Your task to perform on an android device: Go to Yahoo.com Image 0: 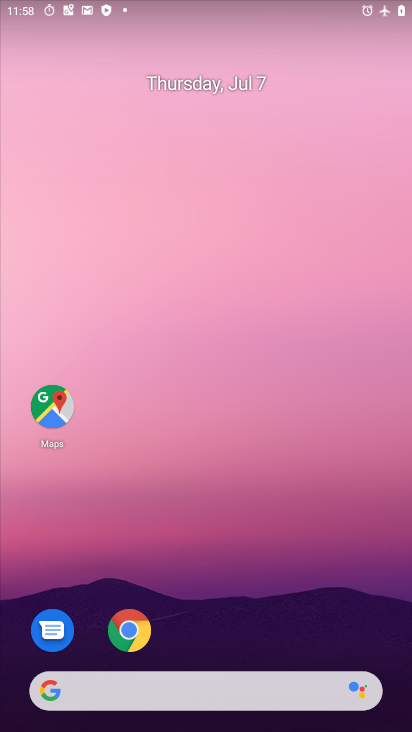
Step 0: click (127, 627)
Your task to perform on an android device: Go to Yahoo.com Image 1: 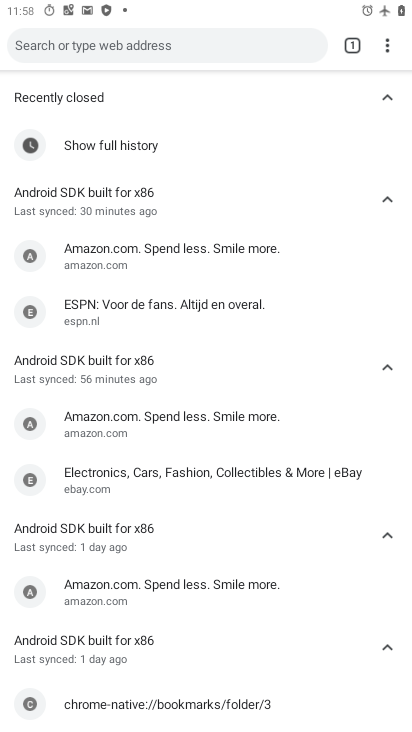
Step 1: click (344, 47)
Your task to perform on an android device: Go to Yahoo.com Image 2: 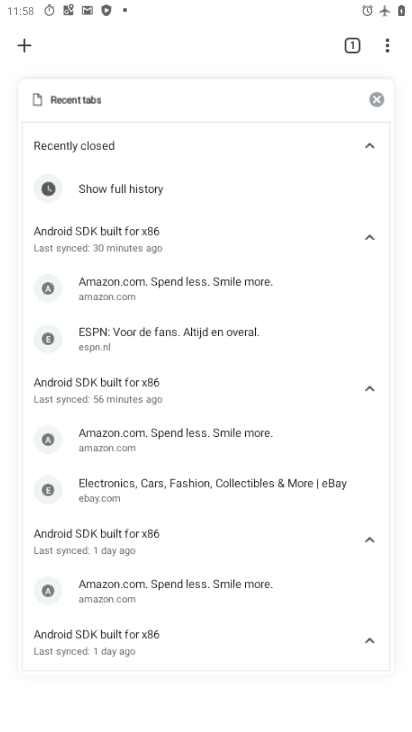
Step 2: click (25, 44)
Your task to perform on an android device: Go to Yahoo.com Image 3: 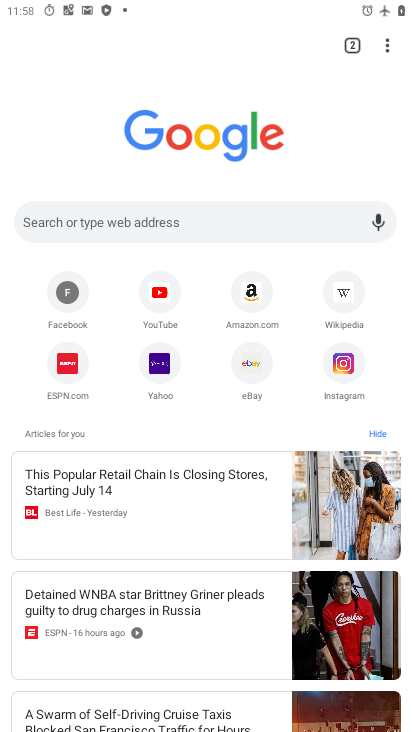
Step 3: click (157, 381)
Your task to perform on an android device: Go to Yahoo.com Image 4: 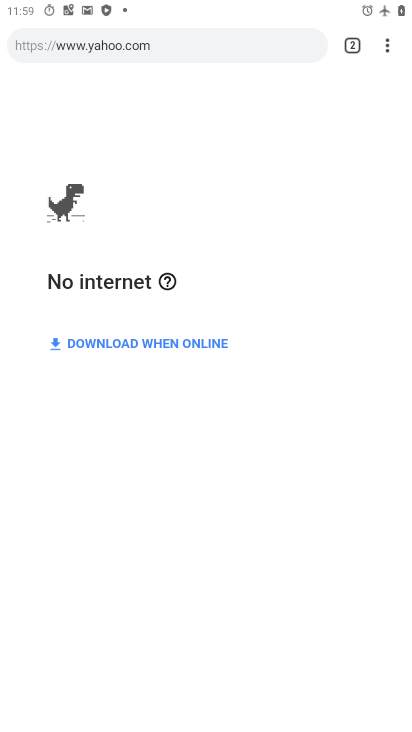
Step 4: task complete